Your task to perform on an android device: delete a single message in the gmail app Image 0: 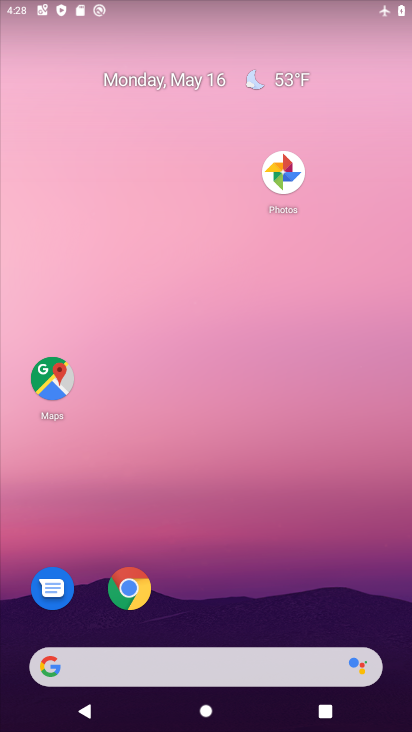
Step 0: drag from (197, 623) to (204, 171)
Your task to perform on an android device: delete a single message in the gmail app Image 1: 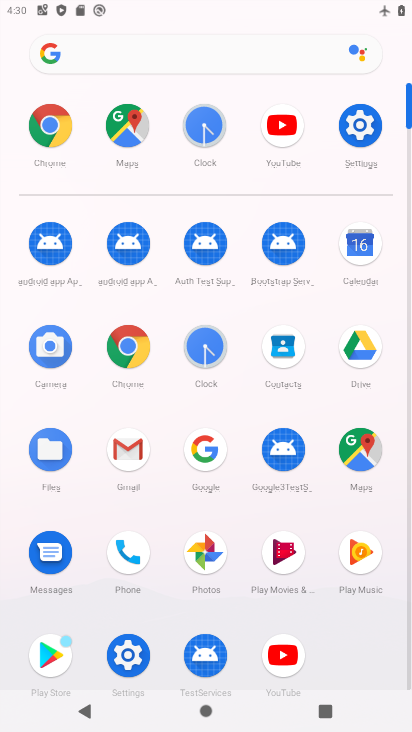
Step 1: click (117, 455)
Your task to perform on an android device: delete a single message in the gmail app Image 2: 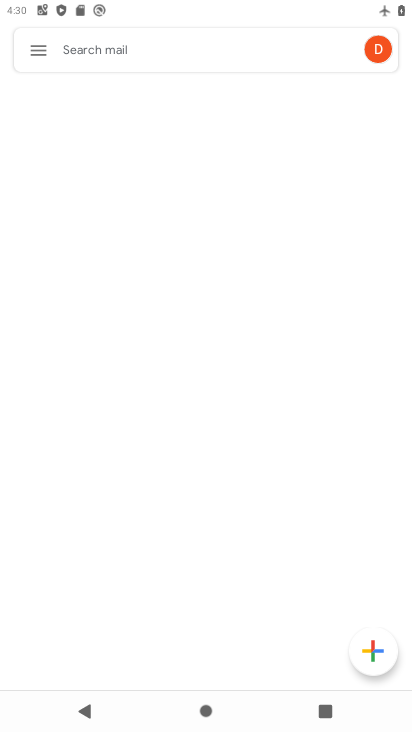
Step 2: click (117, 455)
Your task to perform on an android device: delete a single message in the gmail app Image 3: 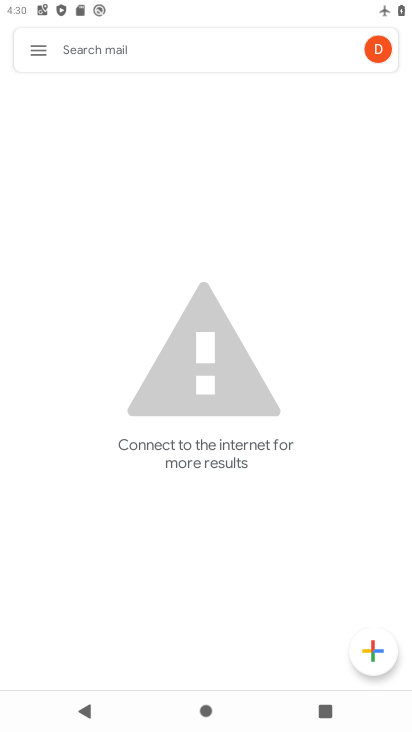
Step 3: task complete